Your task to perform on an android device: Search for sushi restaurants on Maps Image 0: 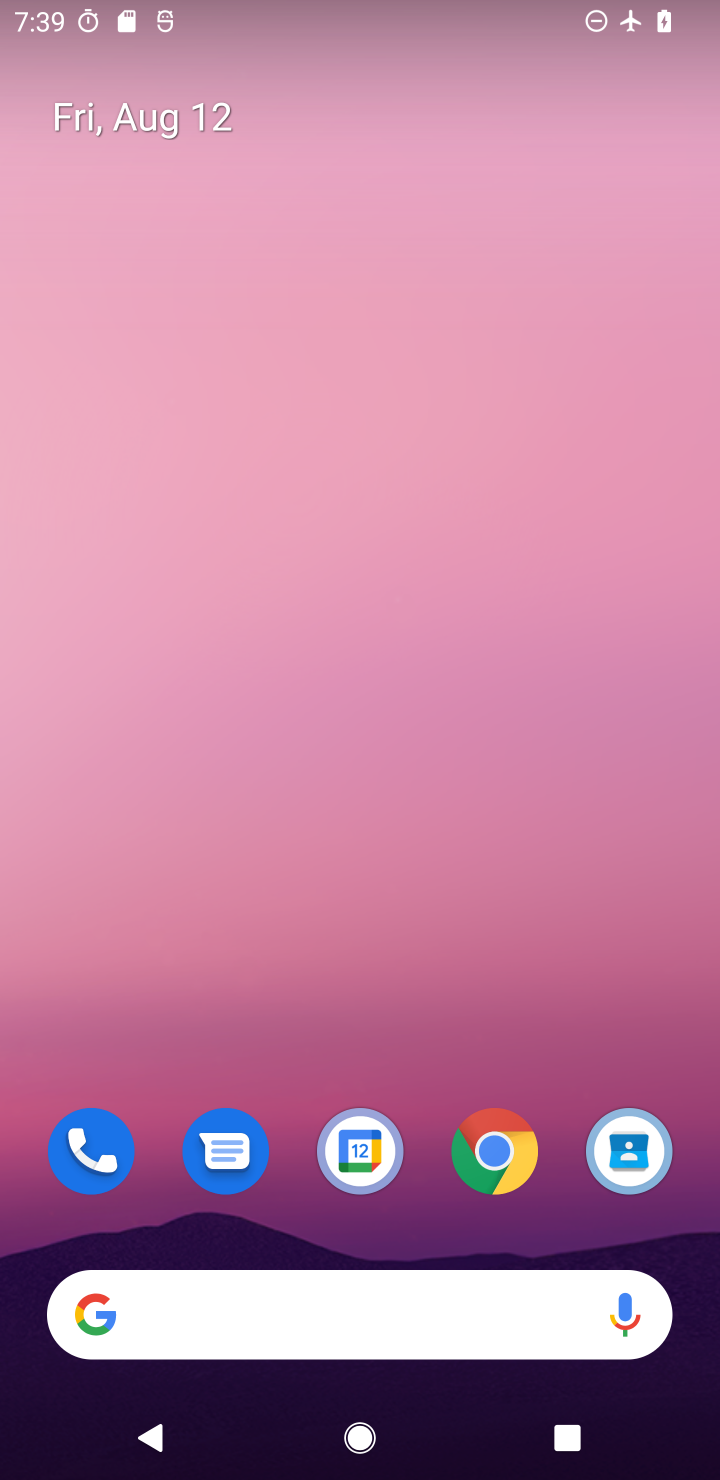
Step 0: drag from (477, 677) to (539, 0)
Your task to perform on an android device: Search for sushi restaurants on Maps Image 1: 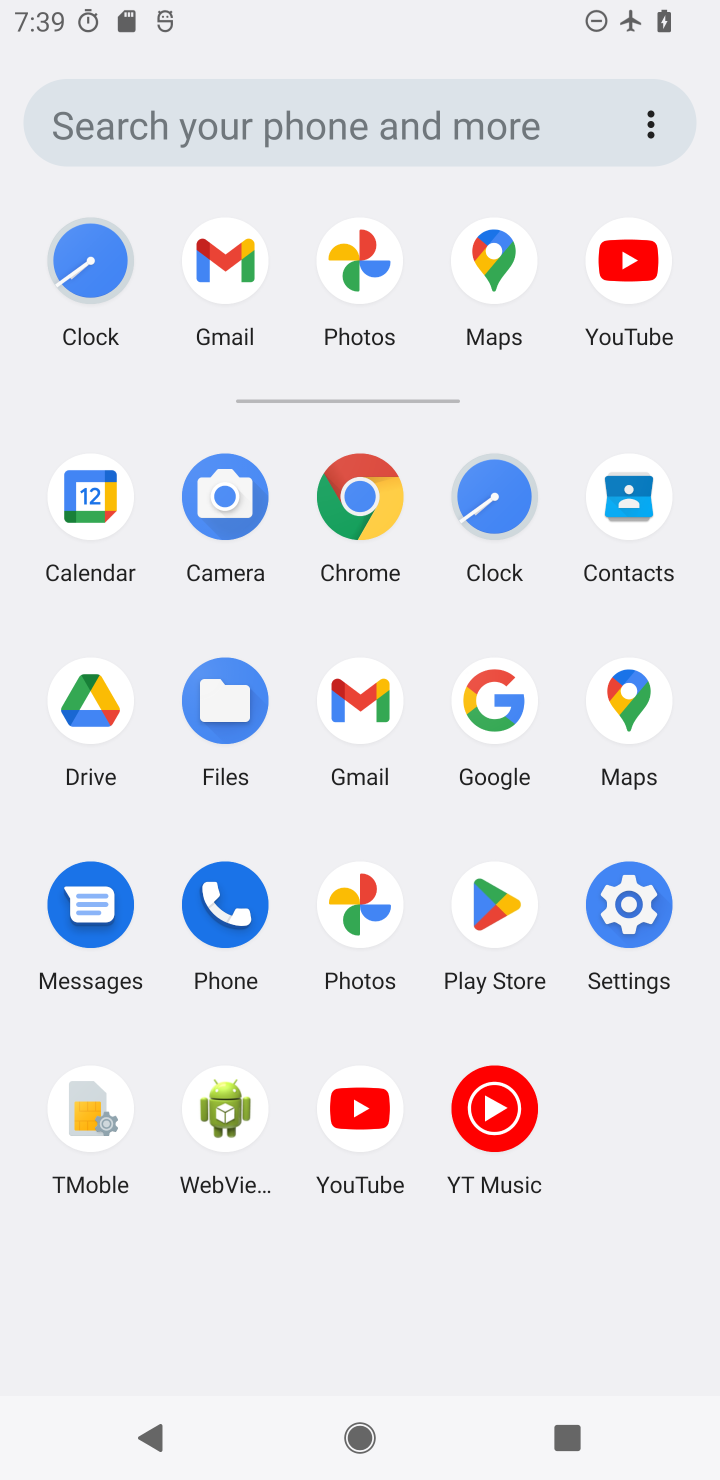
Step 1: click (637, 705)
Your task to perform on an android device: Search for sushi restaurants on Maps Image 2: 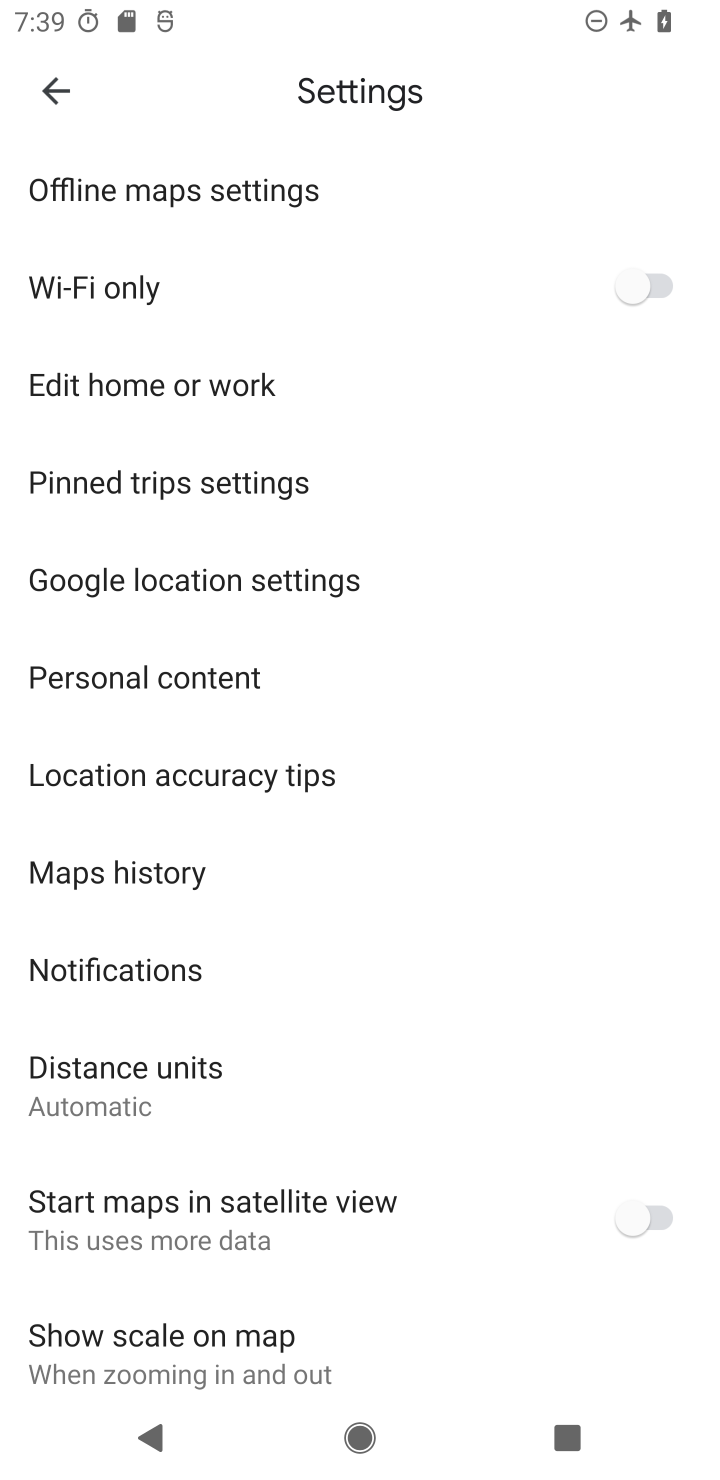
Step 2: press back button
Your task to perform on an android device: Search for sushi restaurants on Maps Image 3: 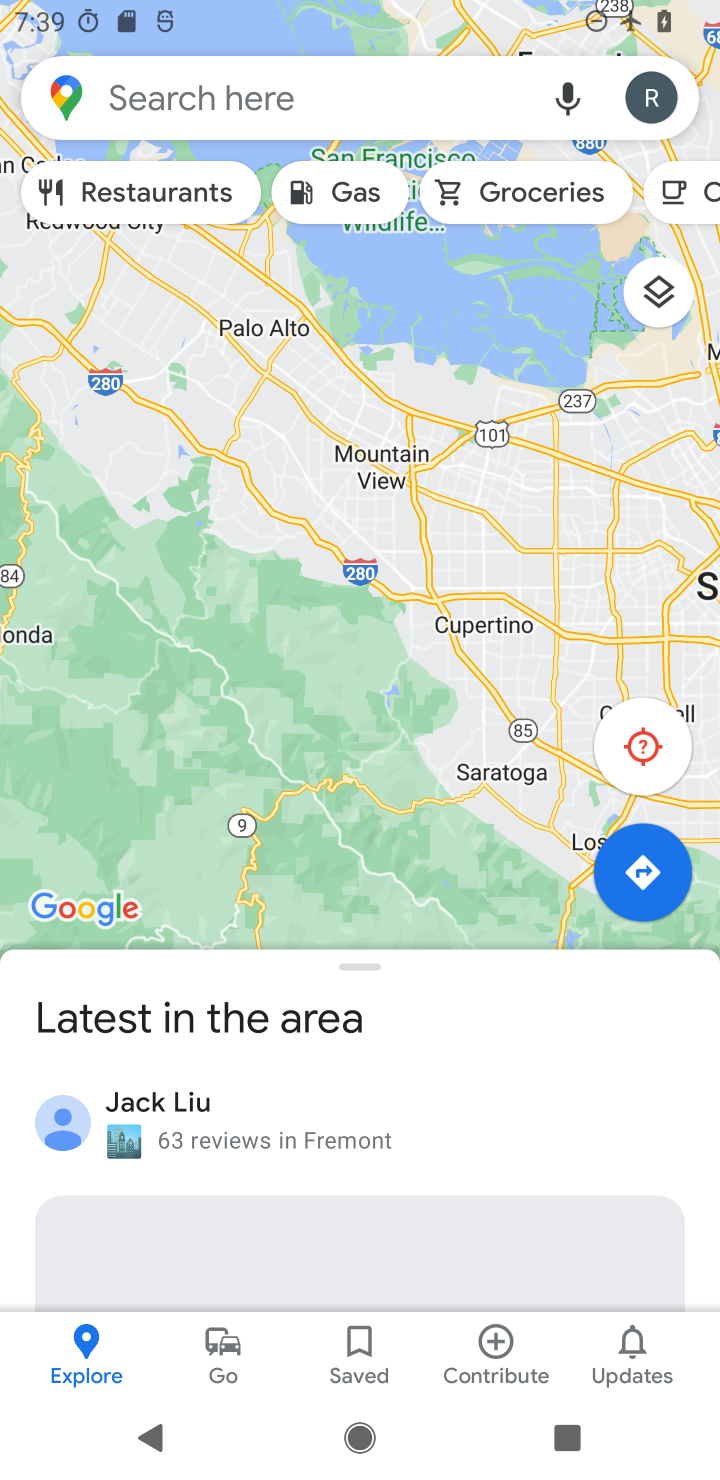
Step 3: click (395, 106)
Your task to perform on an android device: Search for sushi restaurants on Maps Image 4: 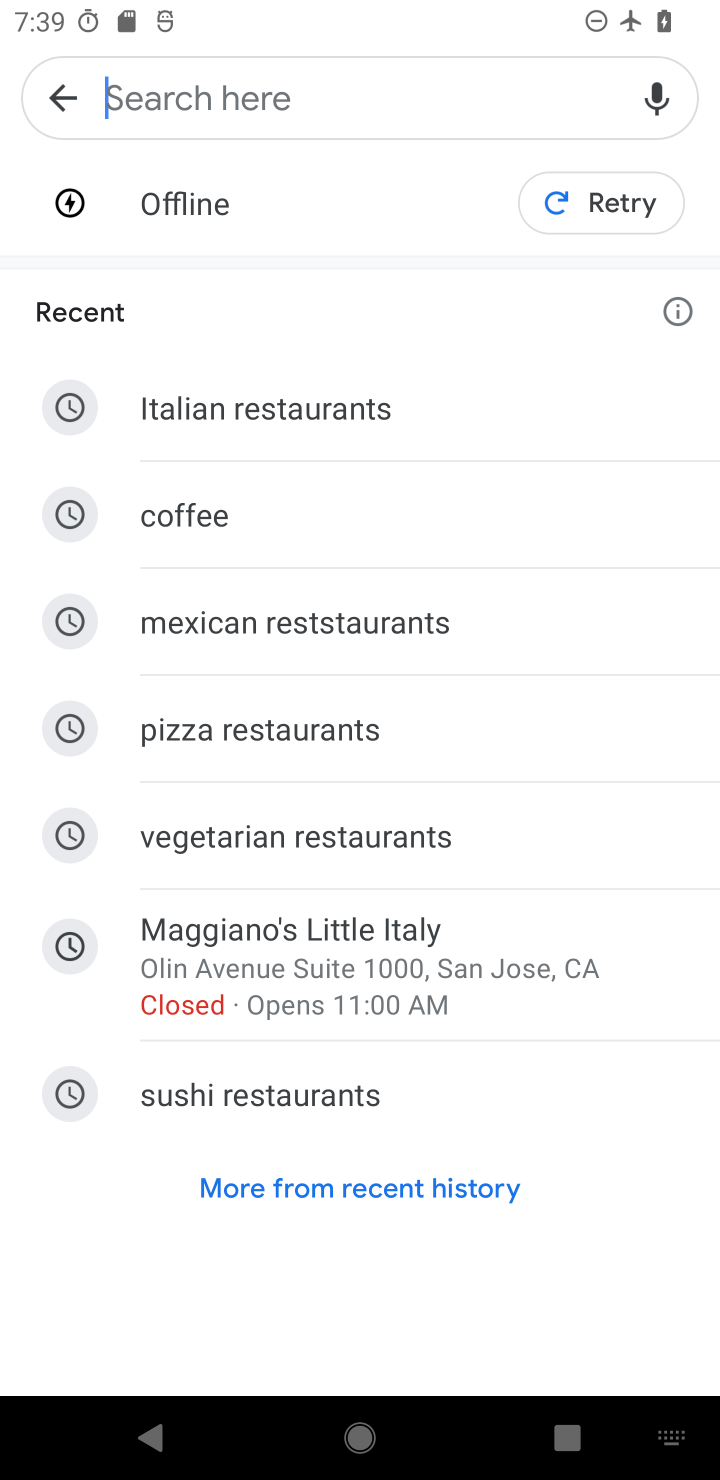
Step 4: click (277, 1089)
Your task to perform on an android device: Search for sushi restaurants on Maps Image 5: 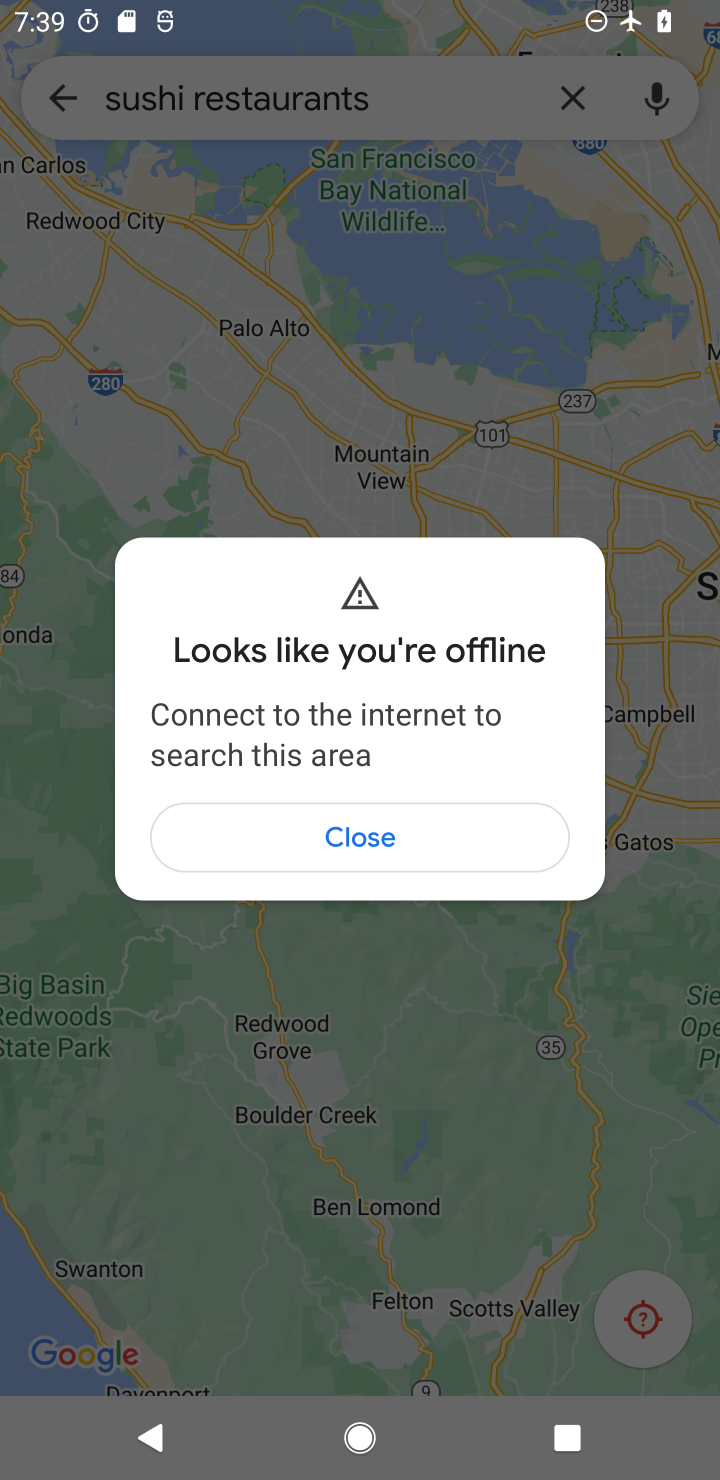
Step 5: task complete